Your task to perform on an android device: refresh tabs in the chrome app Image 0: 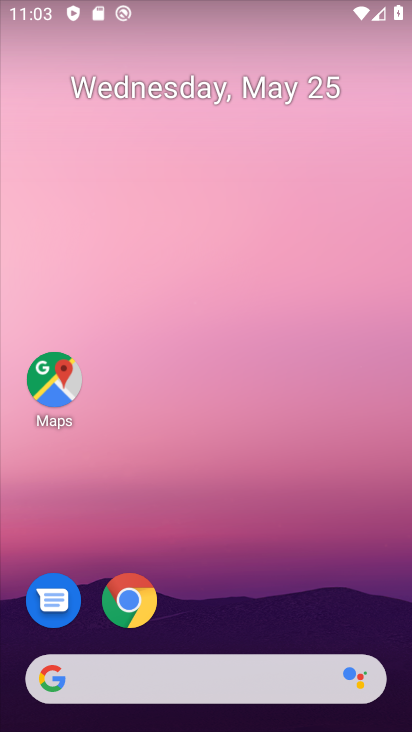
Step 0: click (145, 610)
Your task to perform on an android device: refresh tabs in the chrome app Image 1: 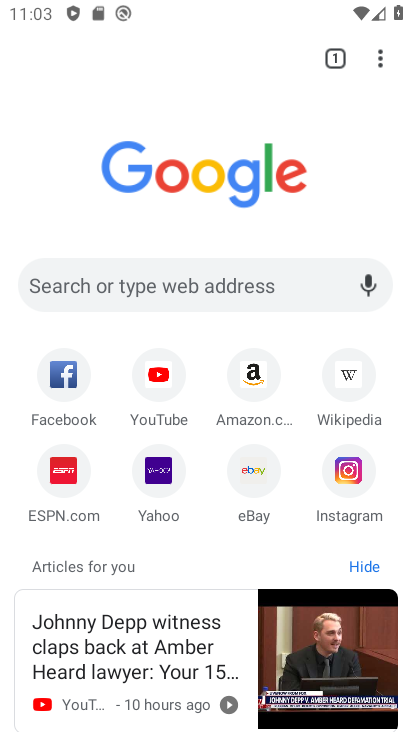
Step 1: click (377, 57)
Your task to perform on an android device: refresh tabs in the chrome app Image 2: 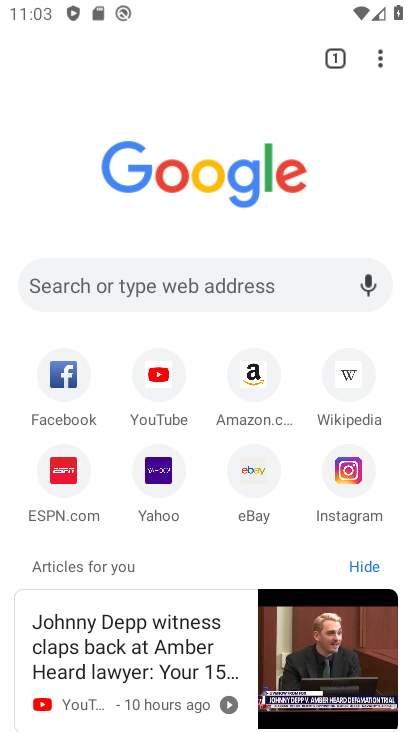
Step 2: task complete